Your task to perform on an android device: What's the latest video from GameSpot? Image 0: 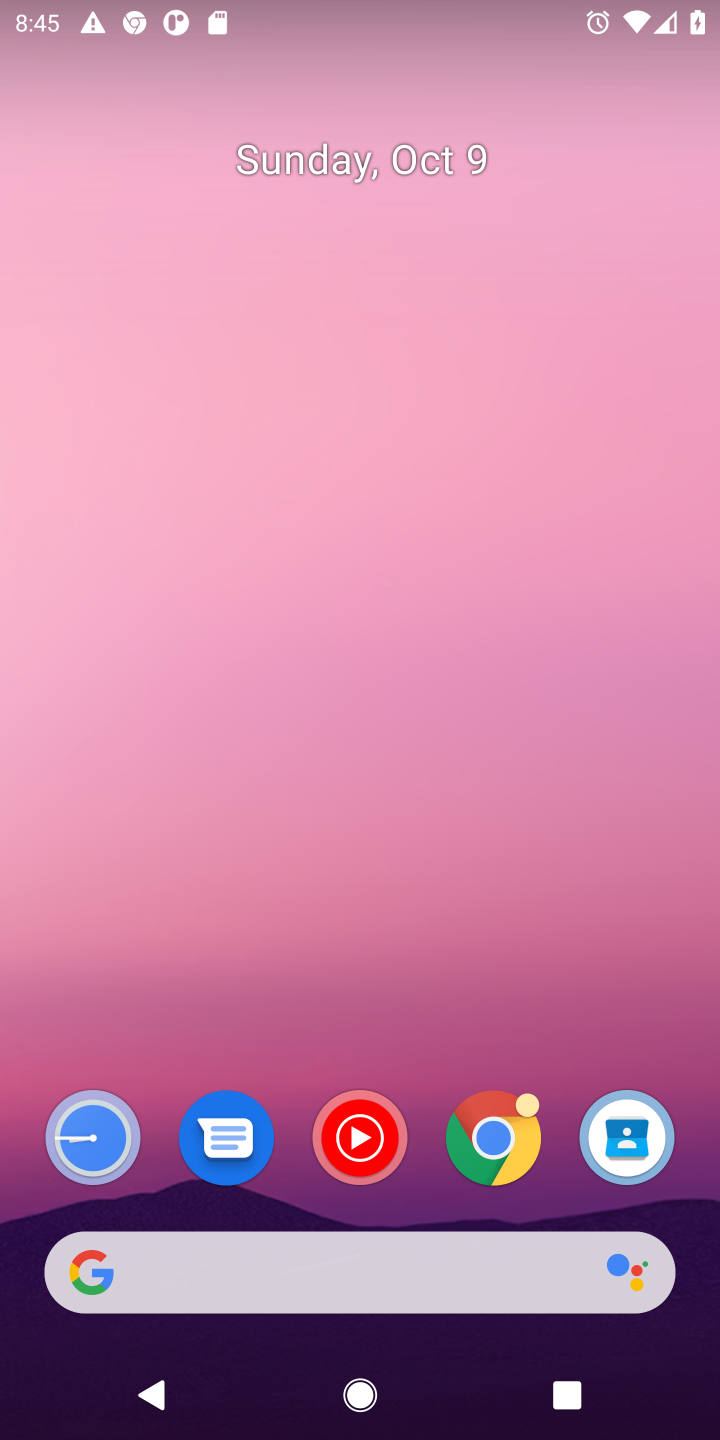
Step 0: drag from (279, 1144) to (399, 314)
Your task to perform on an android device: What's the latest video from GameSpot? Image 1: 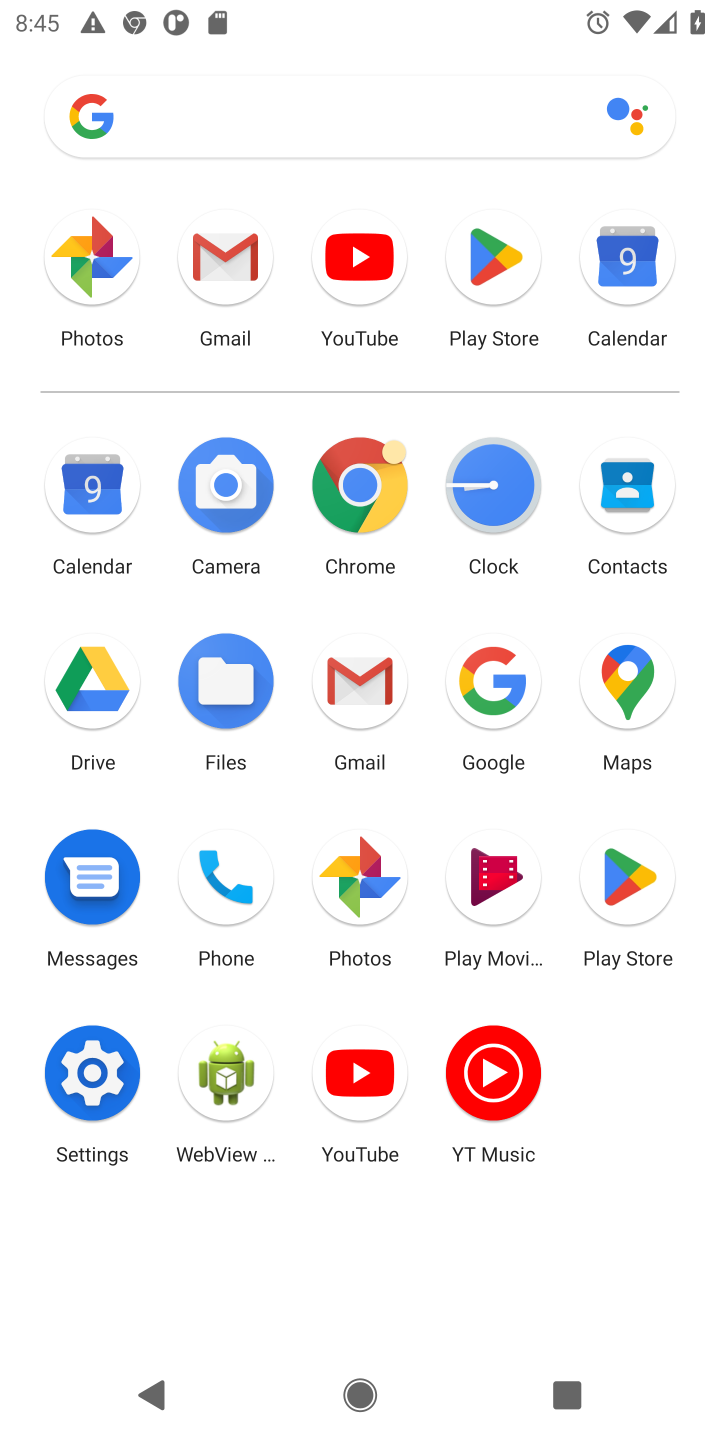
Step 1: click (509, 671)
Your task to perform on an android device: What's the latest video from GameSpot? Image 2: 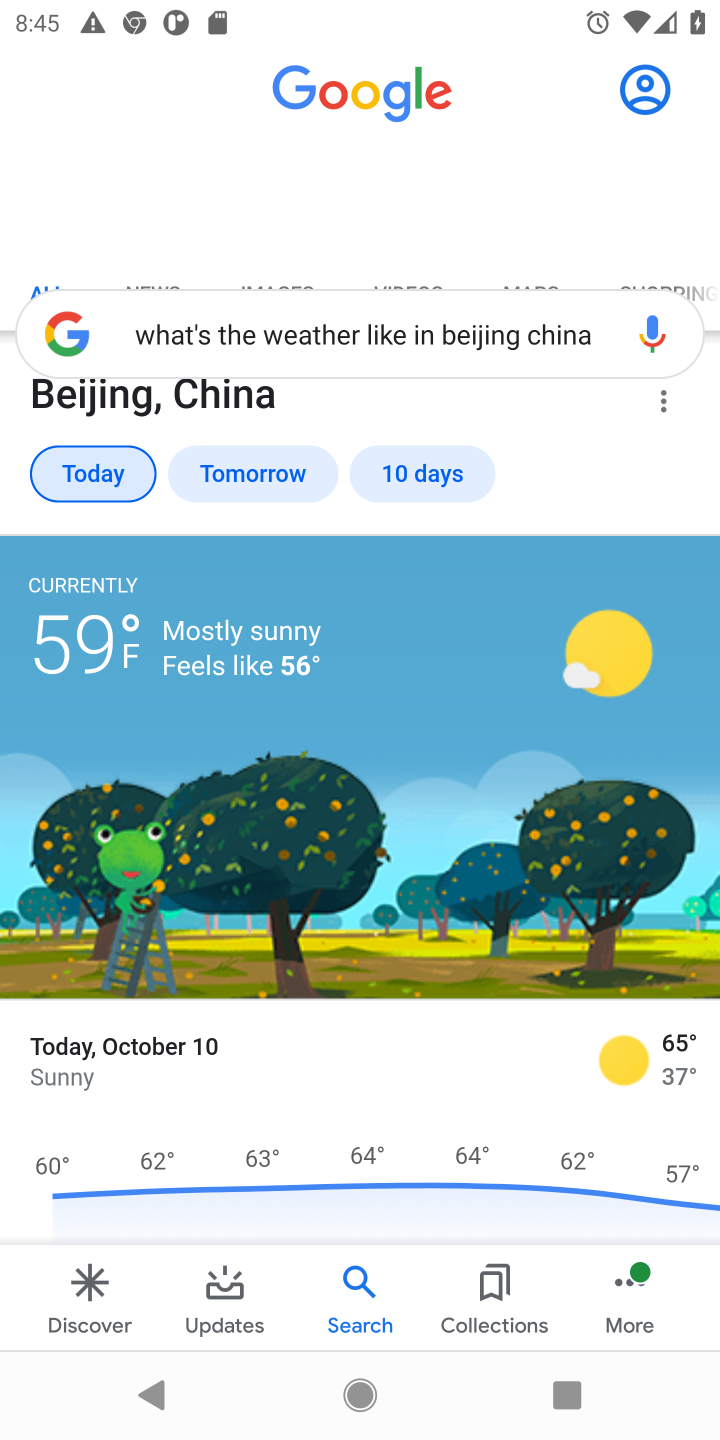
Step 2: click (416, 329)
Your task to perform on an android device: What's the latest video from GameSpot? Image 3: 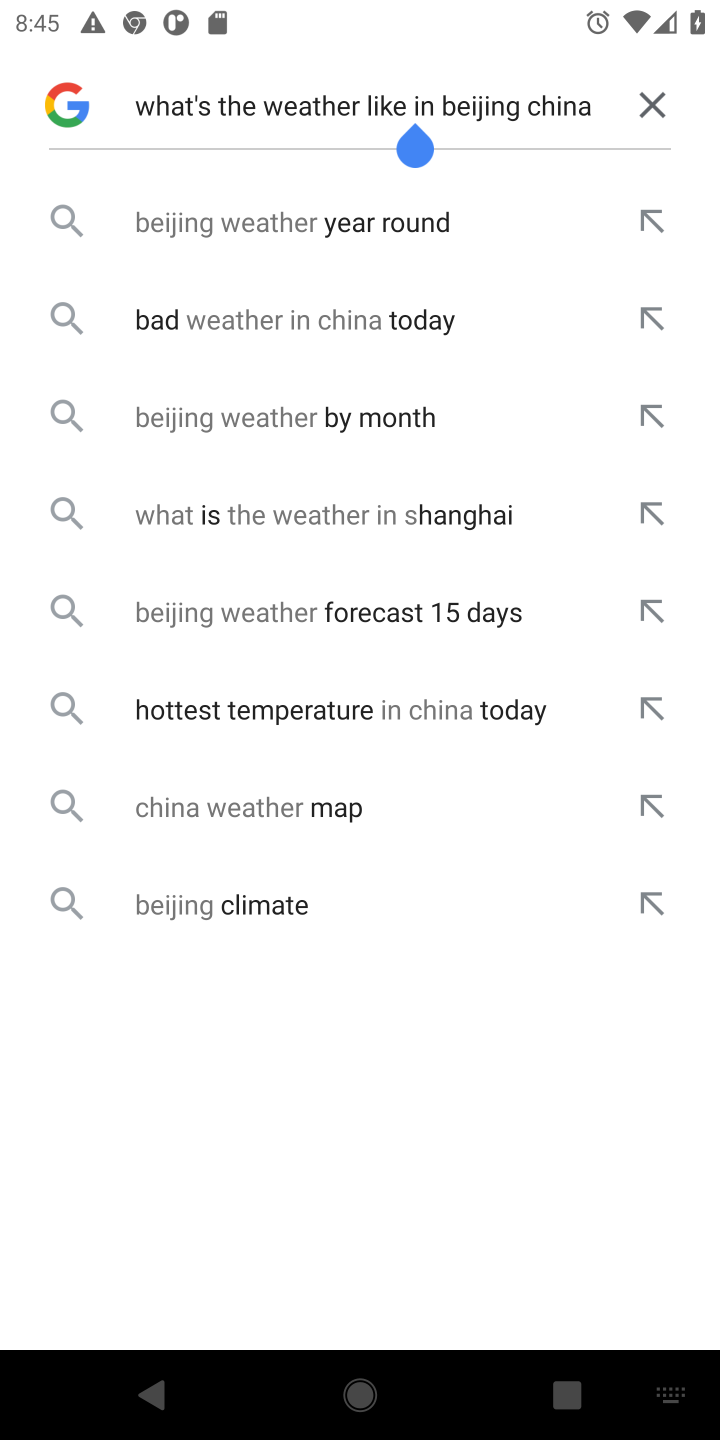
Step 3: click (639, 114)
Your task to perform on an android device: What's the latest video from GameSpot? Image 4: 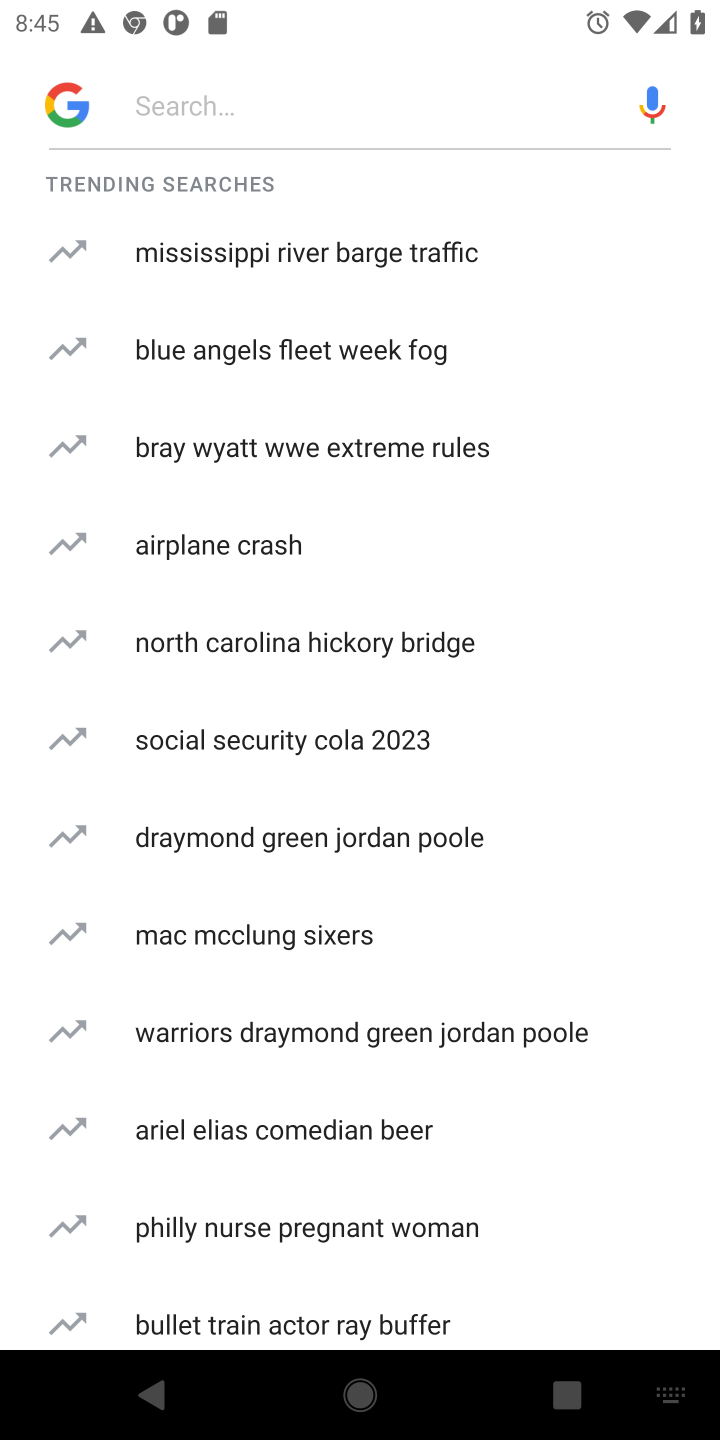
Step 4: click (345, 105)
Your task to perform on an android device: What's the latest video from GameSpot? Image 5: 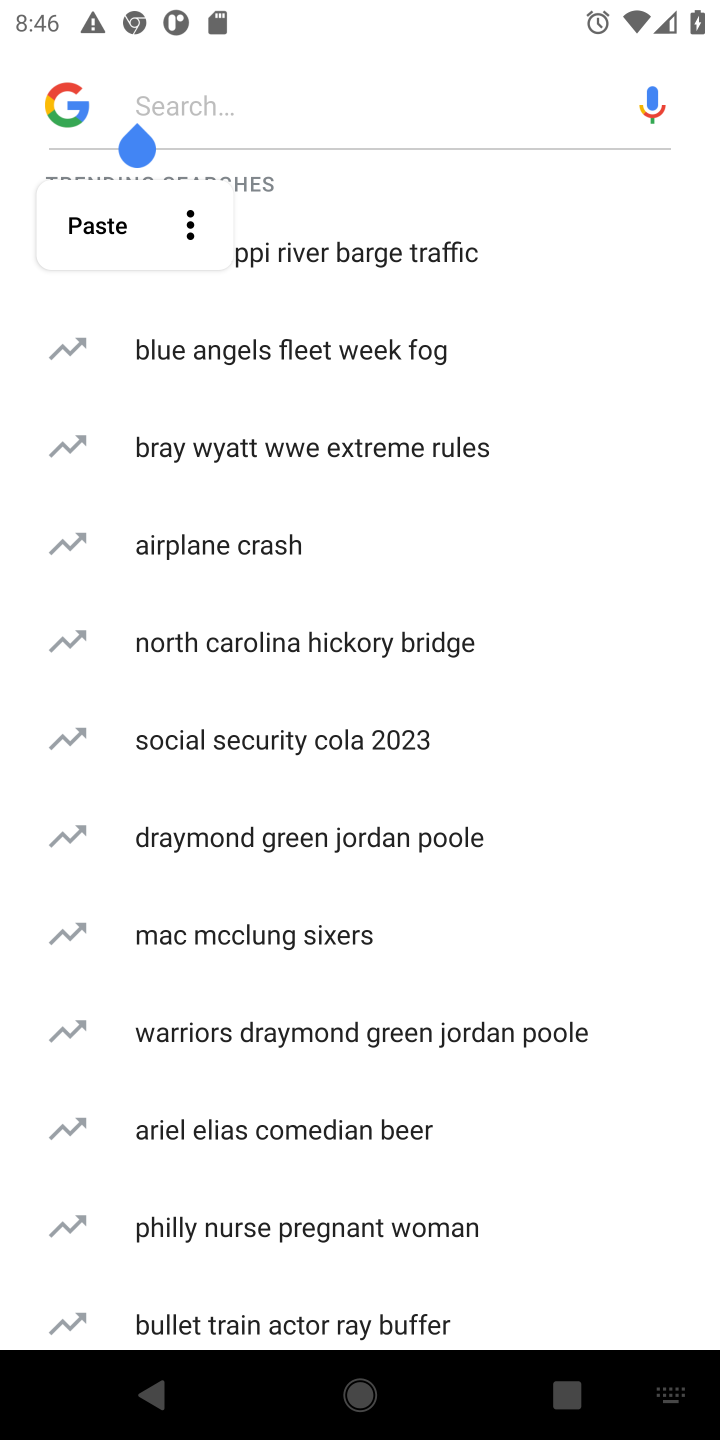
Step 5: type "What's the latest video from GameSpot? "
Your task to perform on an android device: What's the latest video from GameSpot? Image 6: 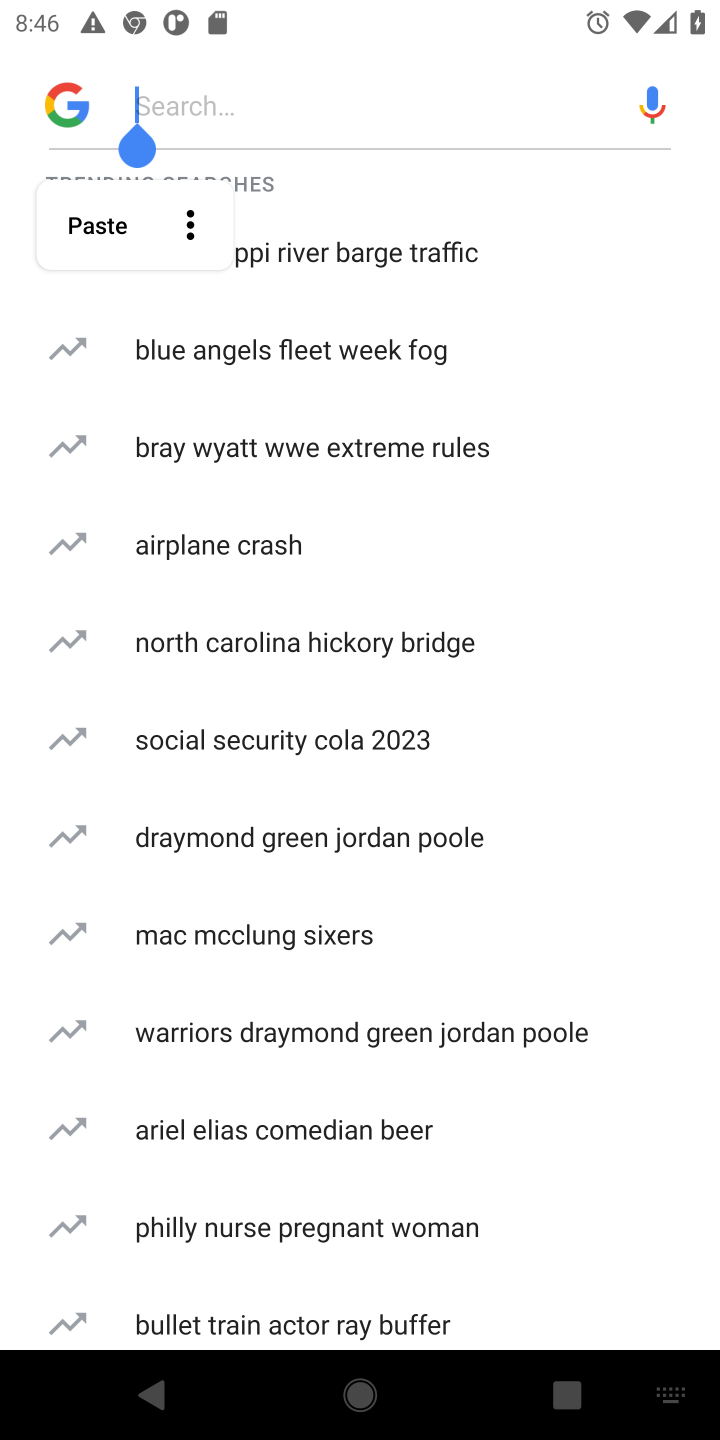
Step 6: click (271, 103)
Your task to perform on an android device: What's the latest video from GameSpot? Image 7: 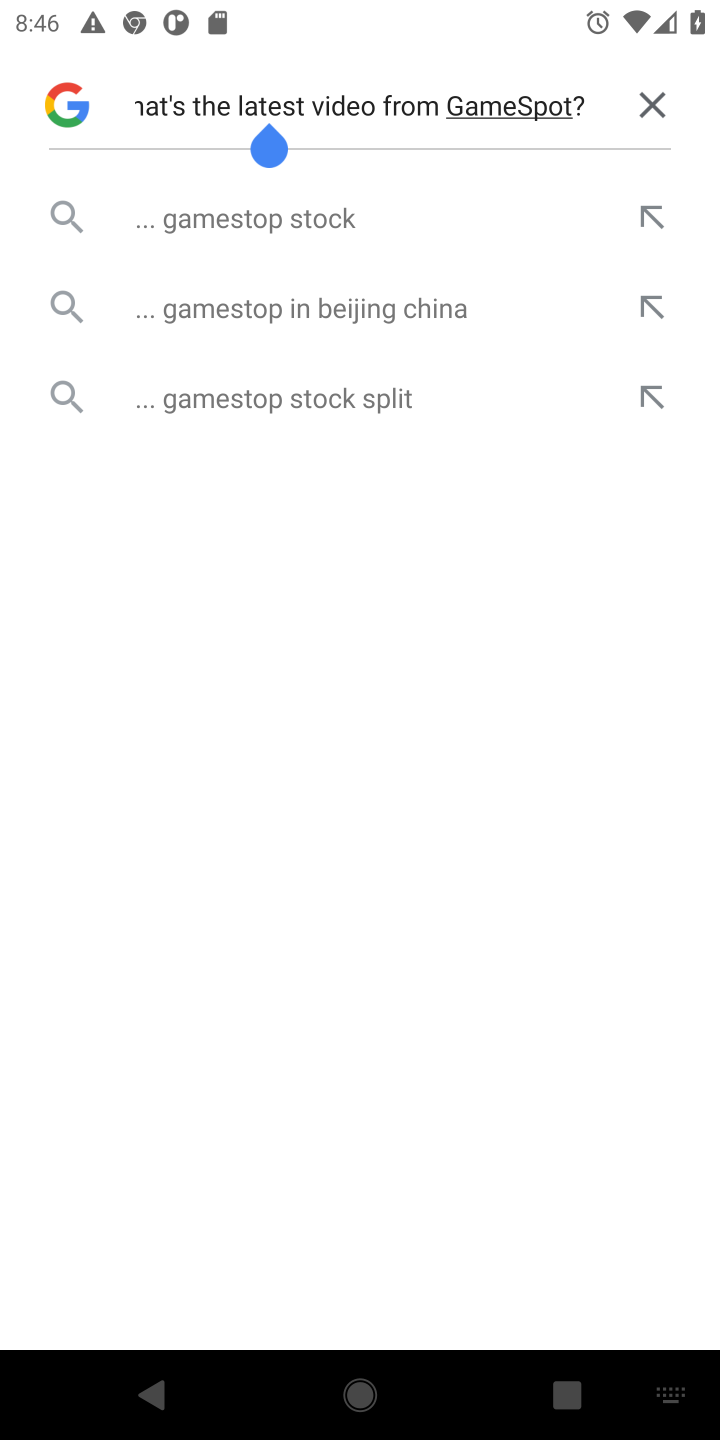
Step 7: click (344, 212)
Your task to perform on an android device: What's the latest video from GameSpot? Image 8: 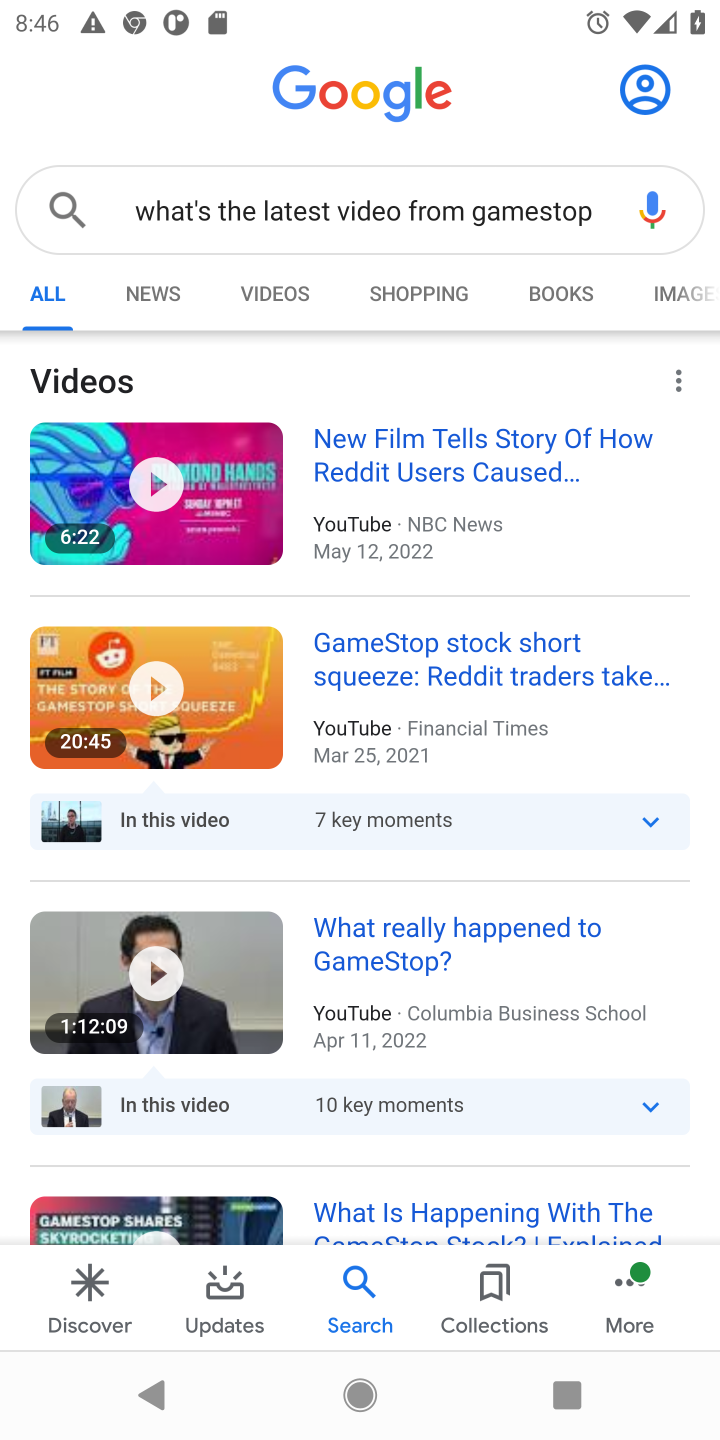
Step 8: task complete